Your task to perform on an android device: toggle javascript in the chrome app Image 0: 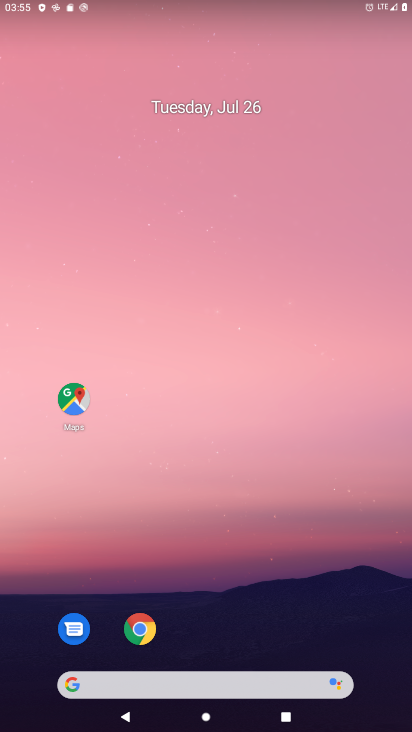
Step 0: drag from (243, 608) to (254, 62)
Your task to perform on an android device: toggle javascript in the chrome app Image 1: 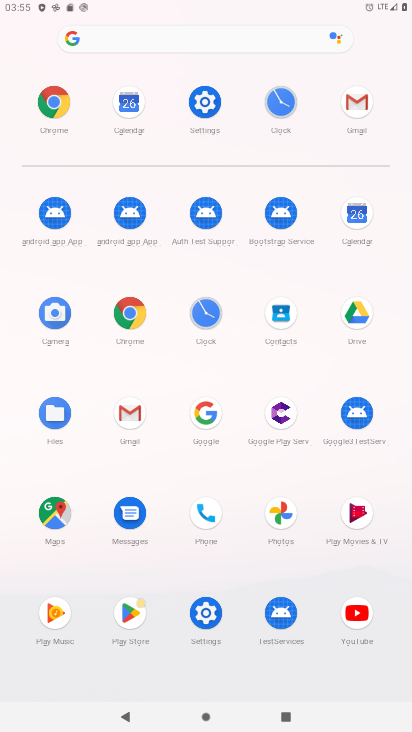
Step 1: click (123, 305)
Your task to perform on an android device: toggle javascript in the chrome app Image 2: 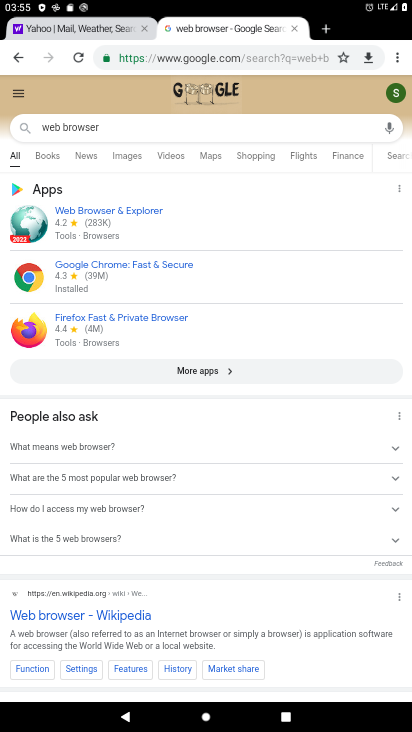
Step 2: drag from (395, 55) to (297, 346)
Your task to perform on an android device: toggle javascript in the chrome app Image 3: 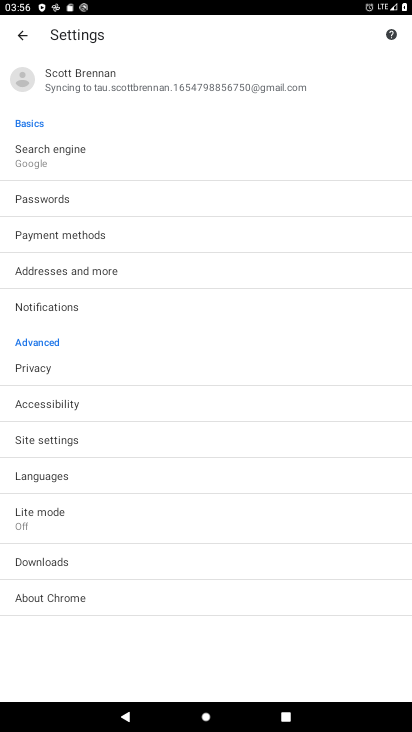
Step 3: click (45, 434)
Your task to perform on an android device: toggle javascript in the chrome app Image 4: 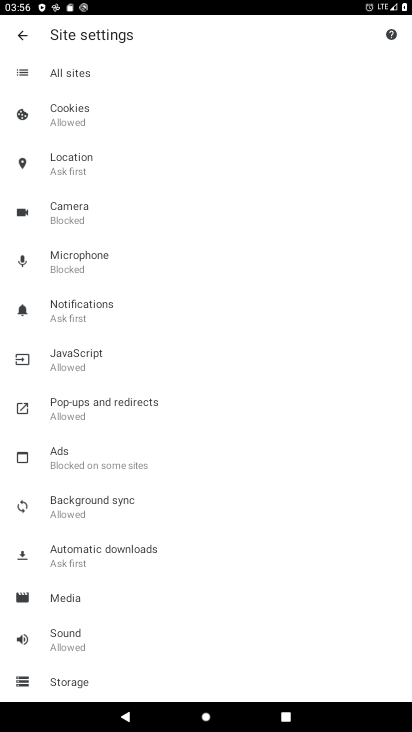
Step 4: click (80, 361)
Your task to perform on an android device: toggle javascript in the chrome app Image 5: 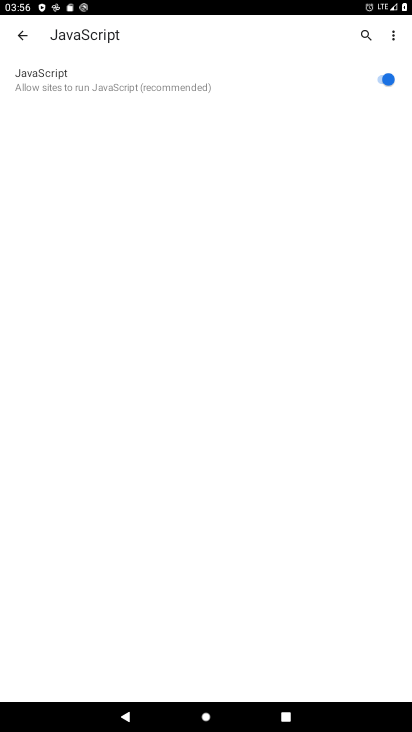
Step 5: click (221, 75)
Your task to perform on an android device: toggle javascript in the chrome app Image 6: 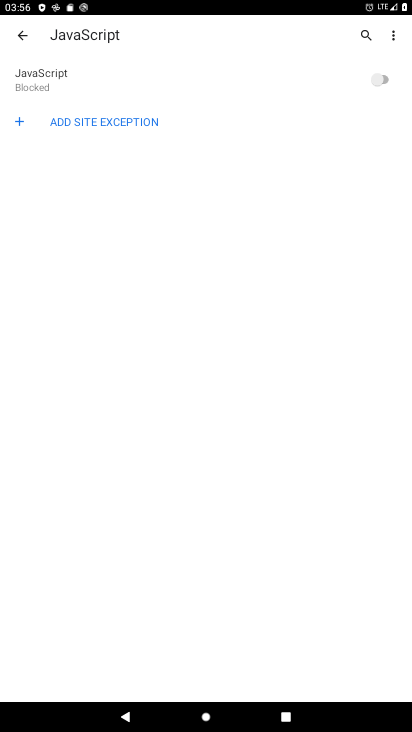
Step 6: task complete